Your task to perform on an android device: Play the last video I watched on Youtube Image 0: 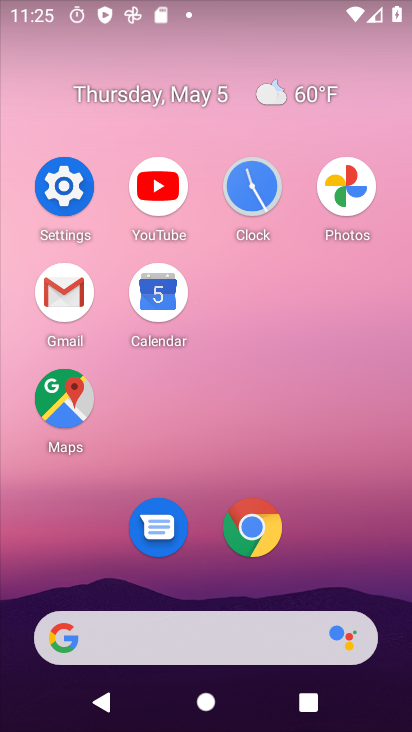
Step 0: click (167, 183)
Your task to perform on an android device: Play the last video I watched on Youtube Image 1: 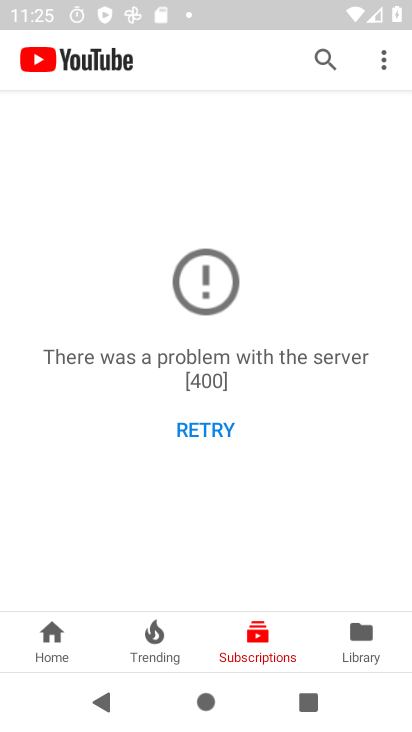
Step 1: task complete